Your task to perform on an android device: Check the weather Image 0: 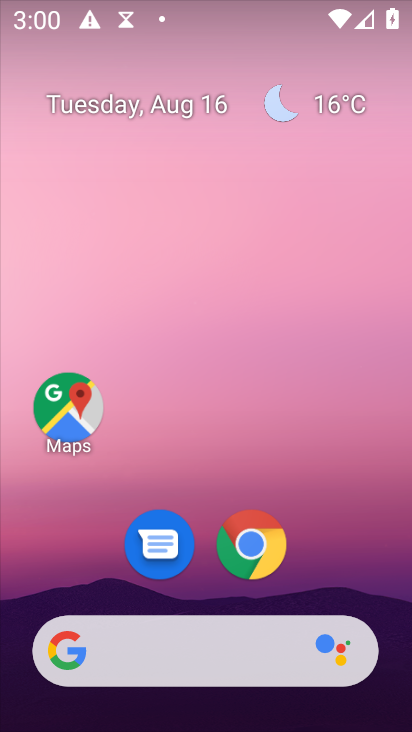
Step 0: drag from (194, 662) to (233, 74)
Your task to perform on an android device: Check the weather Image 1: 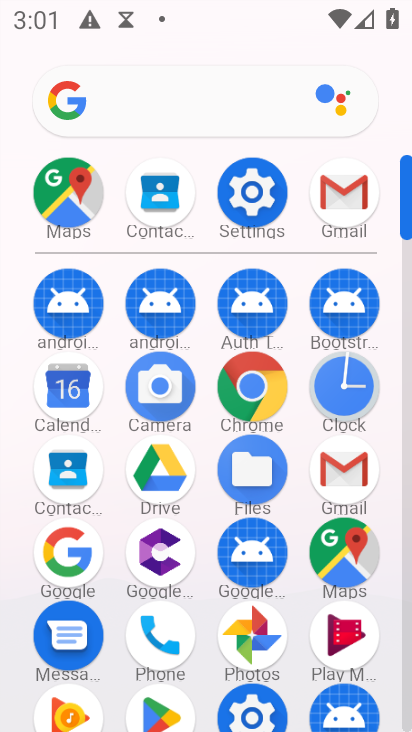
Step 1: click (61, 552)
Your task to perform on an android device: Check the weather Image 2: 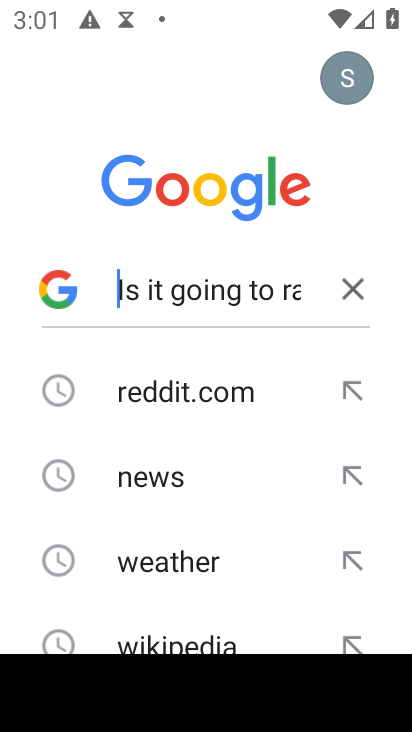
Step 2: click (355, 280)
Your task to perform on an android device: Check the weather Image 3: 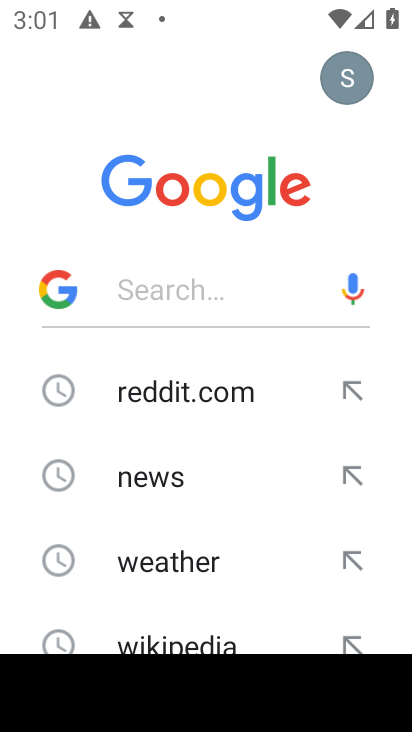
Step 3: click (158, 568)
Your task to perform on an android device: Check the weather Image 4: 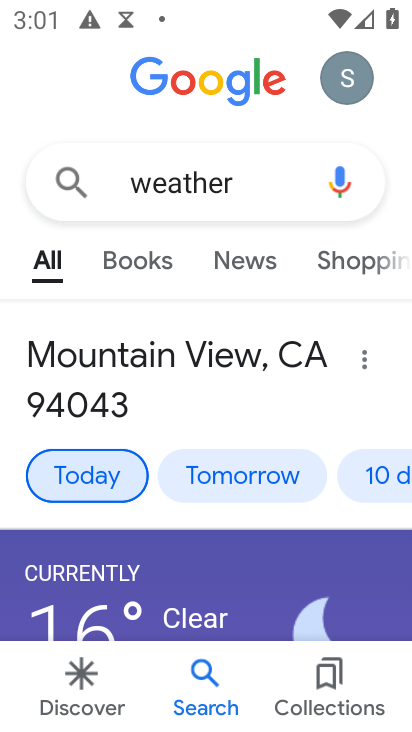
Step 4: task complete